Your task to perform on an android device: turn off sleep mode Image 0: 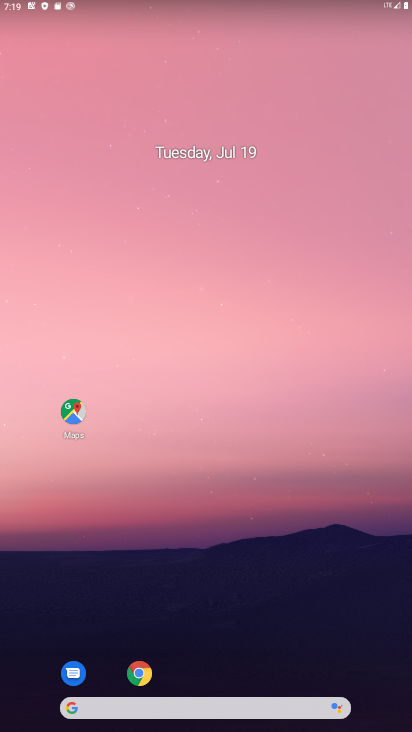
Step 0: drag from (377, 692) to (263, 54)
Your task to perform on an android device: turn off sleep mode Image 1: 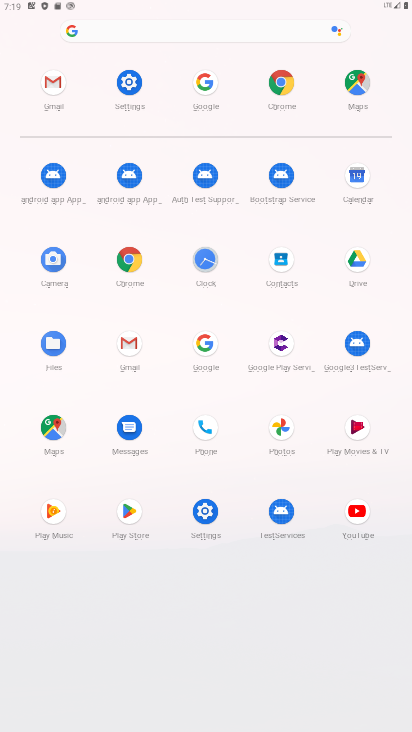
Step 1: click (204, 512)
Your task to perform on an android device: turn off sleep mode Image 2: 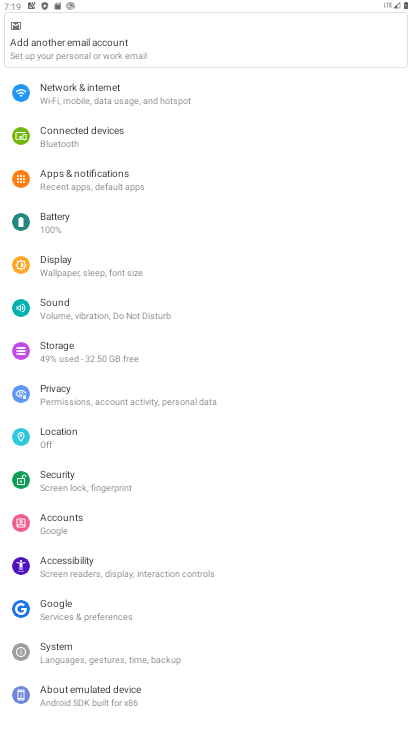
Step 2: task complete